Your task to perform on an android device: check storage Image 0: 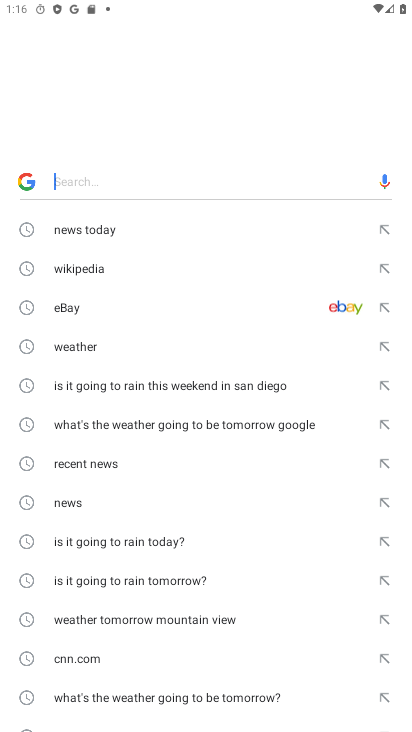
Step 0: drag from (188, 667) to (279, 59)
Your task to perform on an android device: check storage Image 1: 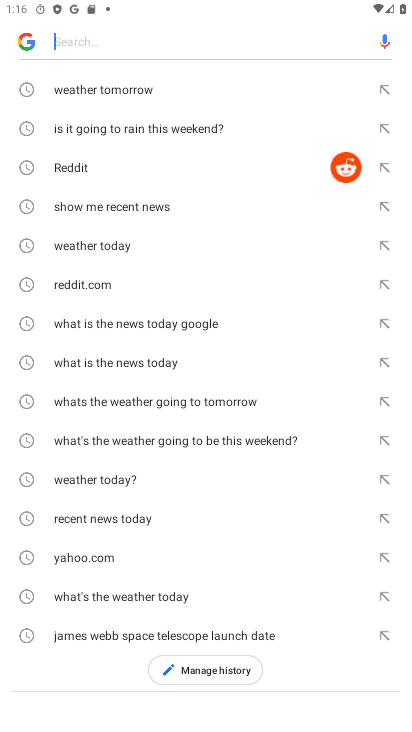
Step 1: press home button
Your task to perform on an android device: check storage Image 2: 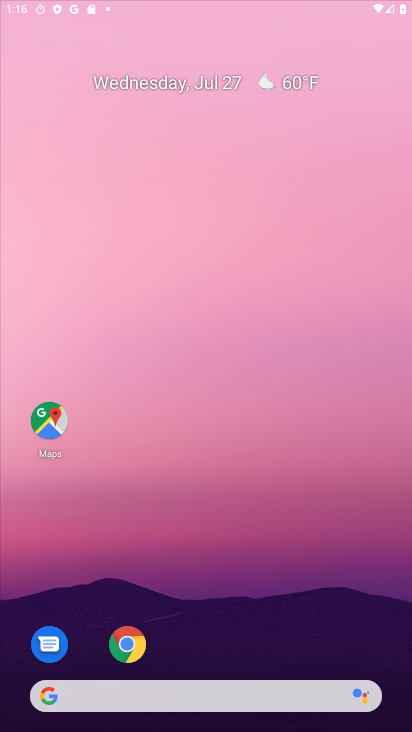
Step 2: drag from (250, 609) to (283, 180)
Your task to perform on an android device: check storage Image 3: 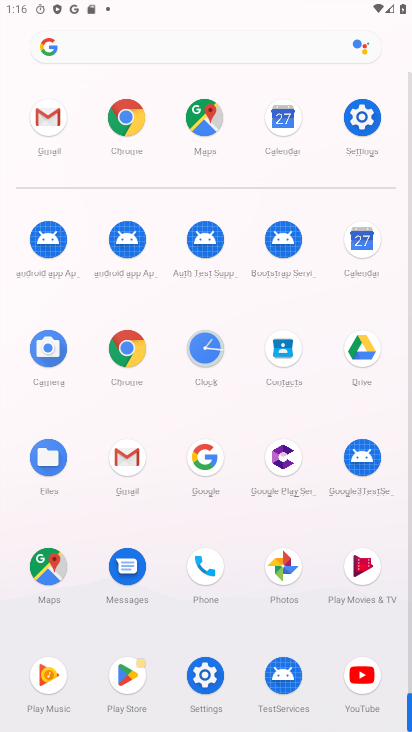
Step 3: click (195, 672)
Your task to perform on an android device: check storage Image 4: 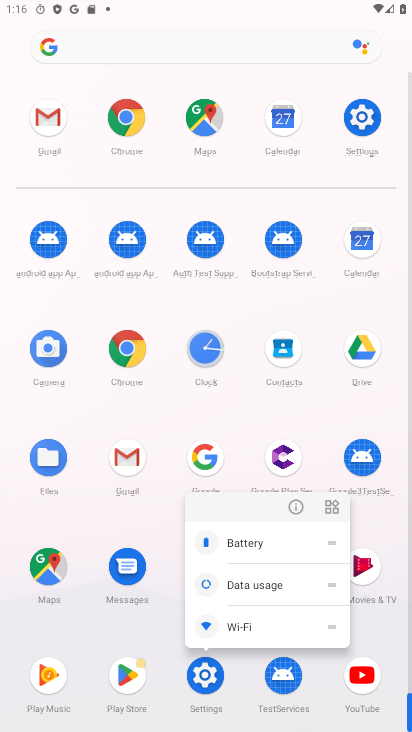
Step 4: click (292, 505)
Your task to perform on an android device: check storage Image 5: 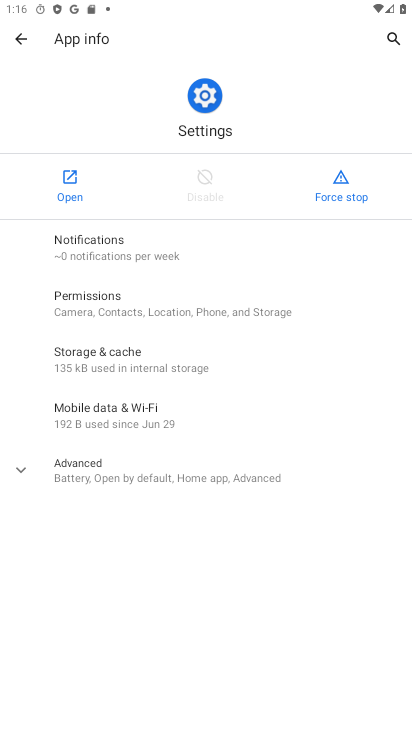
Step 5: click (48, 195)
Your task to perform on an android device: check storage Image 6: 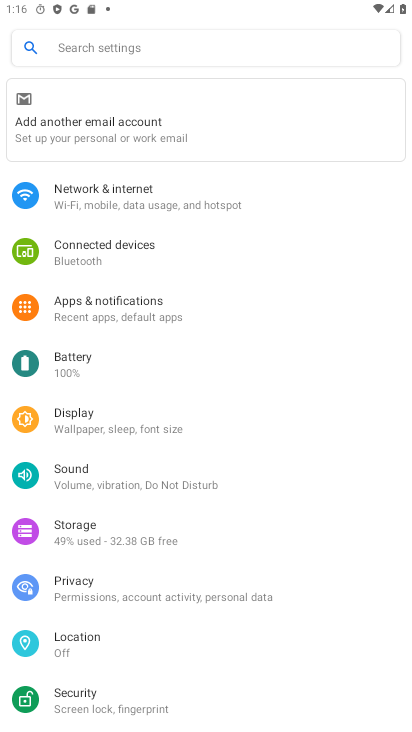
Step 6: drag from (131, 554) to (155, 361)
Your task to perform on an android device: check storage Image 7: 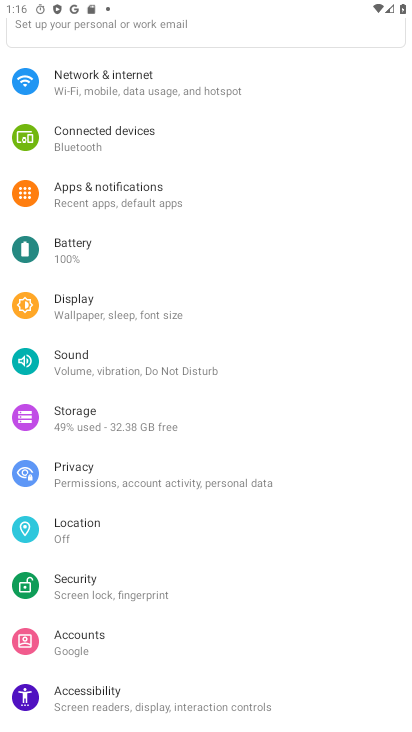
Step 7: click (122, 416)
Your task to perform on an android device: check storage Image 8: 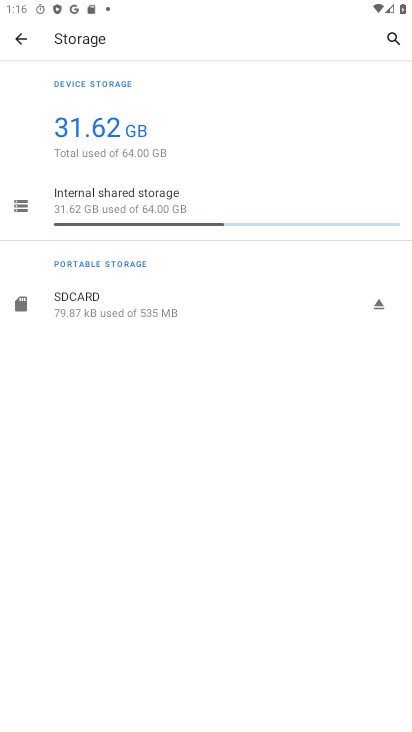
Step 8: task complete